Your task to perform on an android device: turn on wifi Image 0: 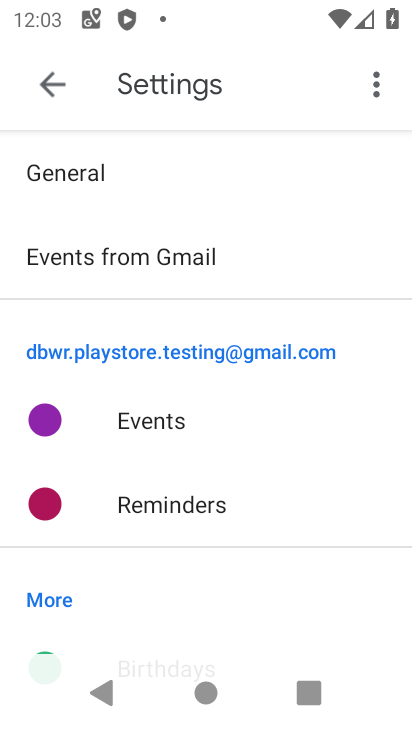
Step 0: press home button
Your task to perform on an android device: turn on wifi Image 1: 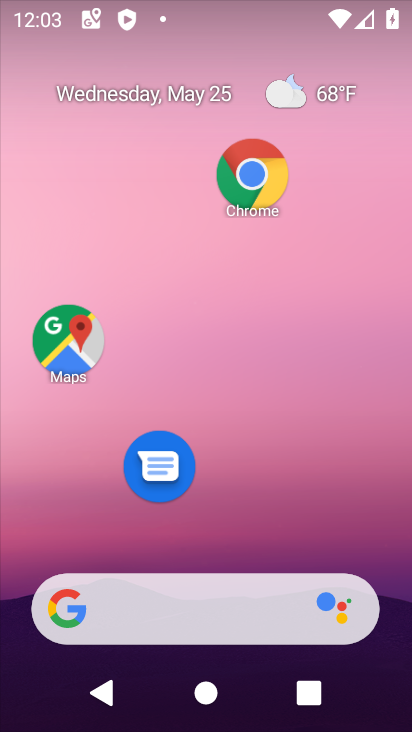
Step 1: drag from (198, 525) to (195, 113)
Your task to perform on an android device: turn on wifi Image 2: 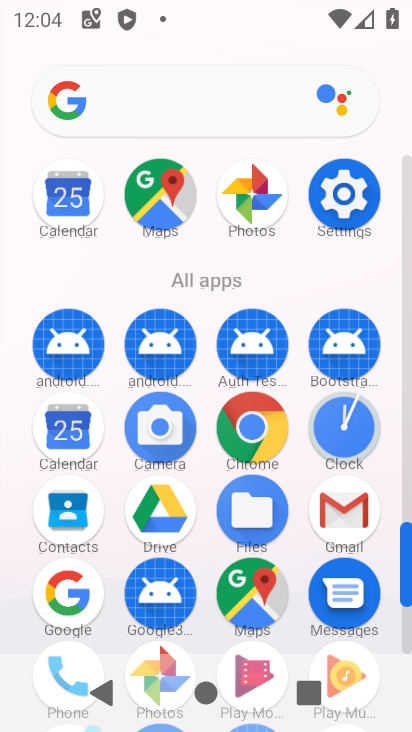
Step 2: click (365, 171)
Your task to perform on an android device: turn on wifi Image 3: 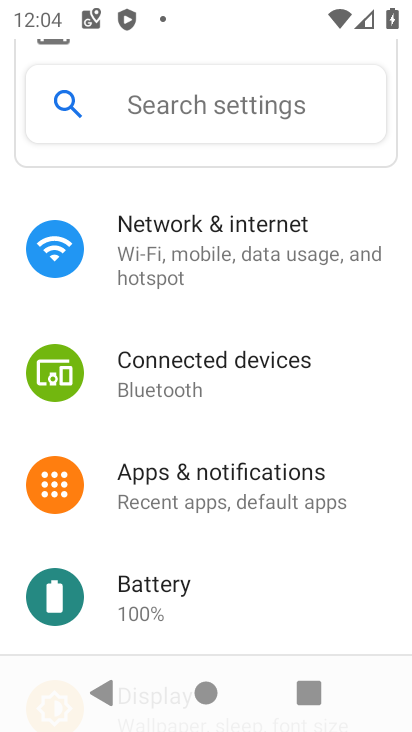
Step 3: drag from (365, 171) to (322, 352)
Your task to perform on an android device: turn on wifi Image 4: 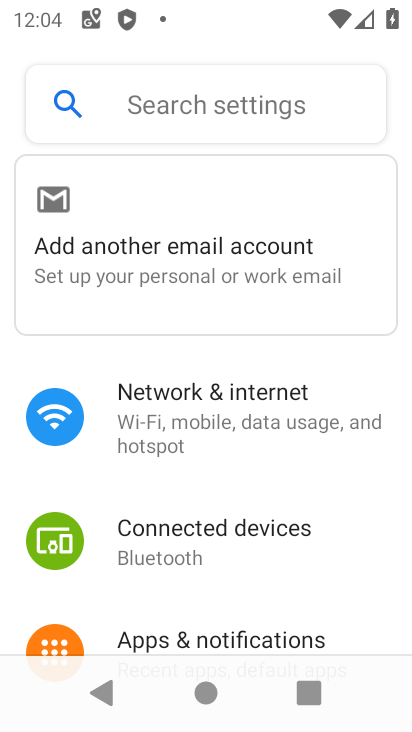
Step 4: click (192, 413)
Your task to perform on an android device: turn on wifi Image 5: 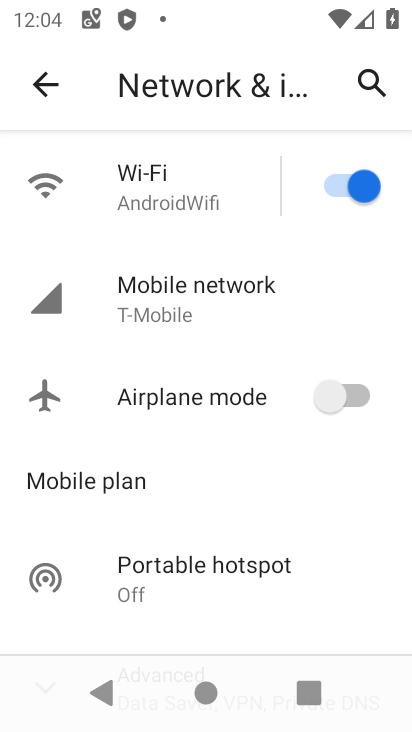
Step 5: task complete